Your task to perform on an android device: refresh tabs in the chrome app Image 0: 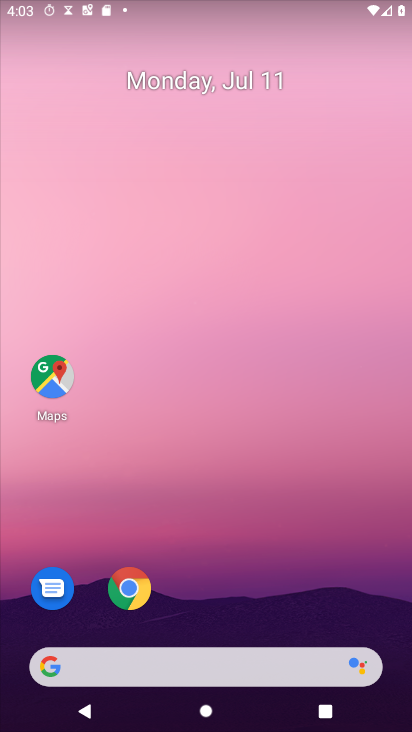
Step 0: click (133, 580)
Your task to perform on an android device: refresh tabs in the chrome app Image 1: 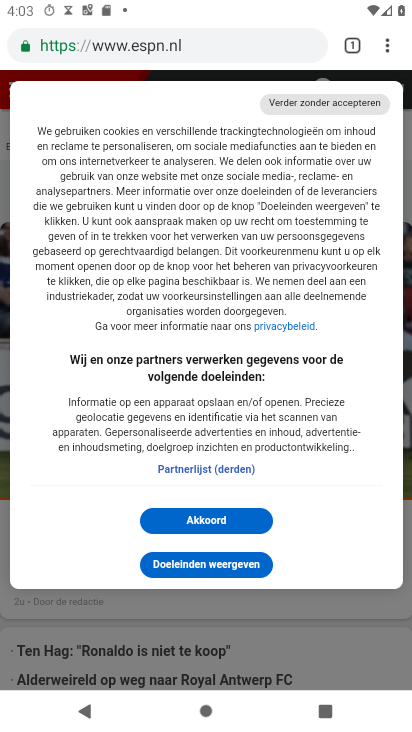
Step 1: click (387, 36)
Your task to perform on an android device: refresh tabs in the chrome app Image 2: 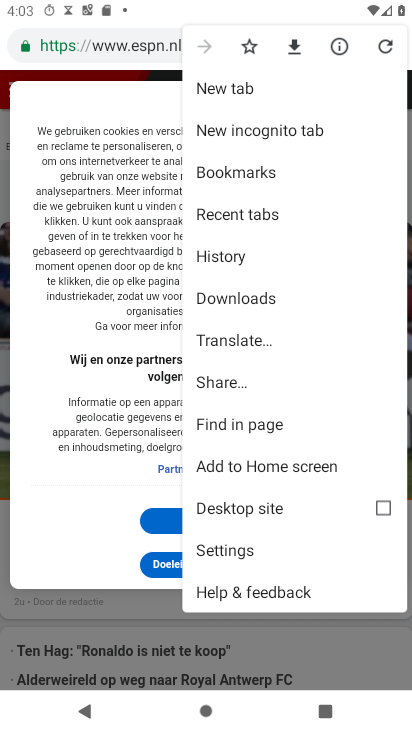
Step 2: click (376, 46)
Your task to perform on an android device: refresh tabs in the chrome app Image 3: 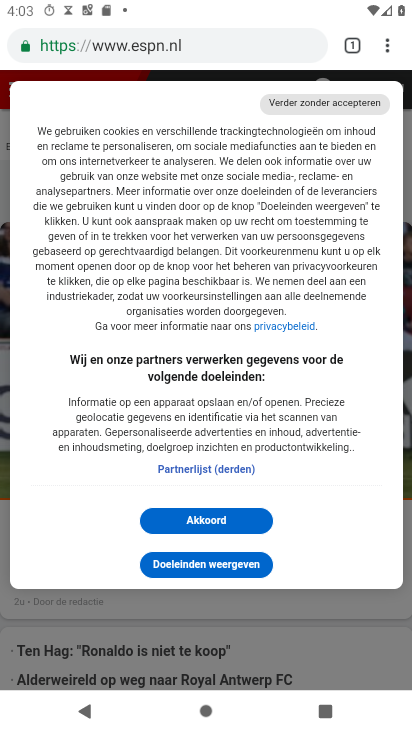
Step 3: task complete